Your task to perform on an android device: turn off location history Image 0: 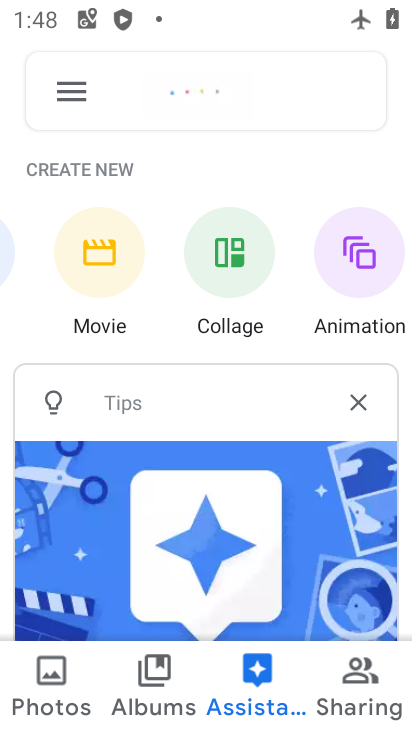
Step 0: press home button
Your task to perform on an android device: turn off location history Image 1: 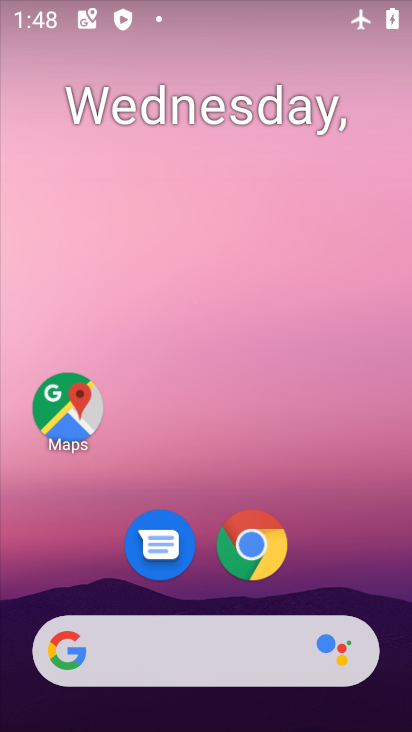
Step 1: drag from (333, 518) to (279, 49)
Your task to perform on an android device: turn off location history Image 2: 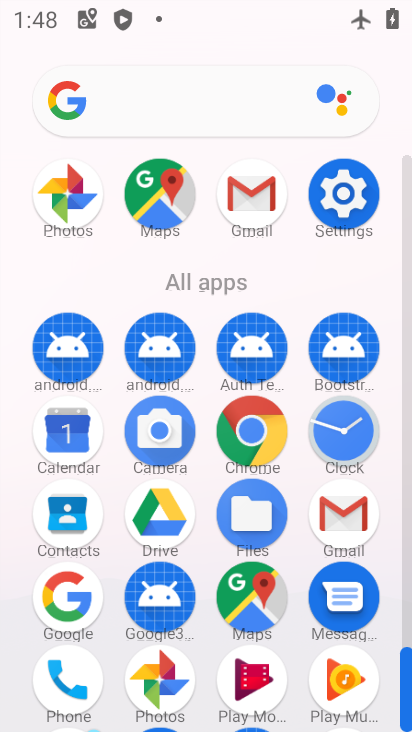
Step 2: click (356, 195)
Your task to perform on an android device: turn off location history Image 3: 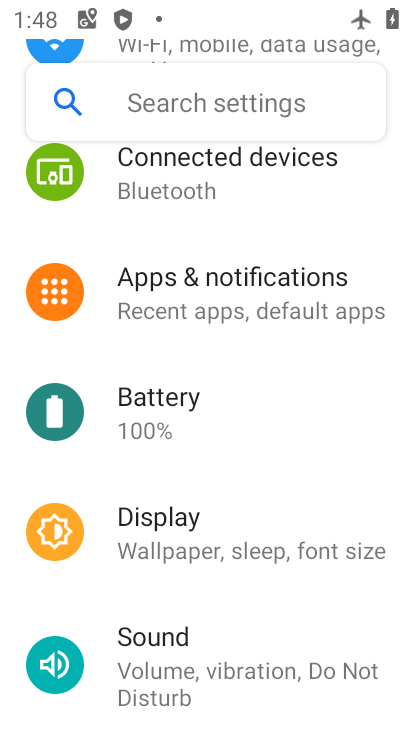
Step 3: drag from (235, 543) to (263, 145)
Your task to perform on an android device: turn off location history Image 4: 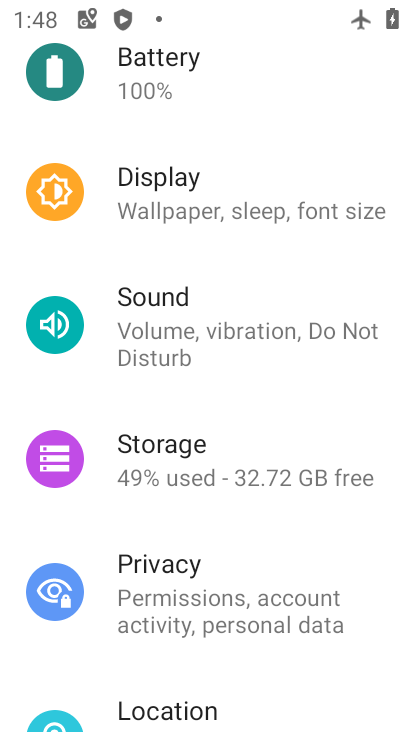
Step 4: drag from (203, 583) to (264, 264)
Your task to perform on an android device: turn off location history Image 5: 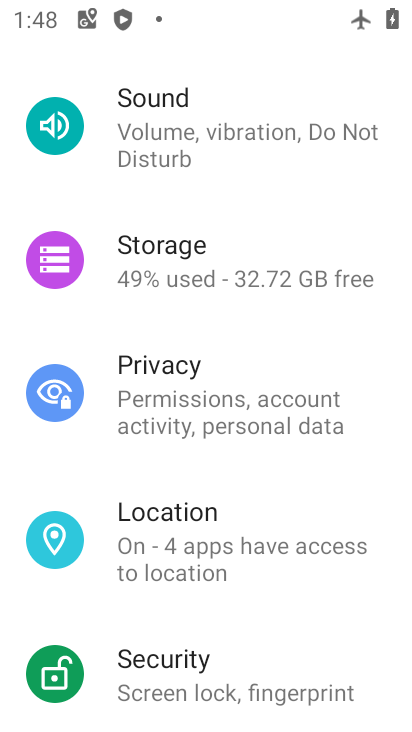
Step 5: click (170, 539)
Your task to perform on an android device: turn off location history Image 6: 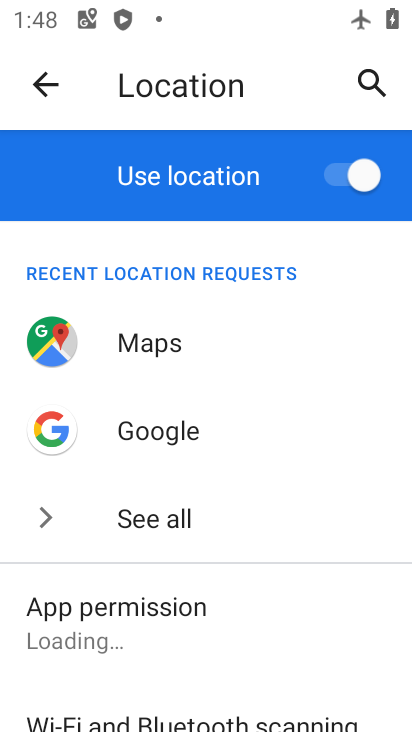
Step 6: drag from (245, 610) to (270, 155)
Your task to perform on an android device: turn off location history Image 7: 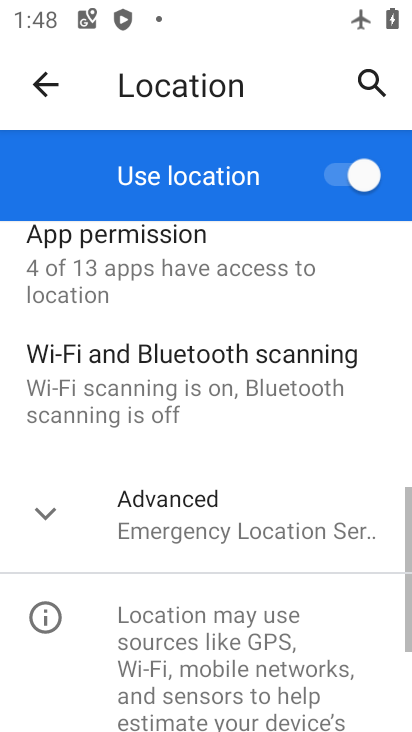
Step 7: click (210, 529)
Your task to perform on an android device: turn off location history Image 8: 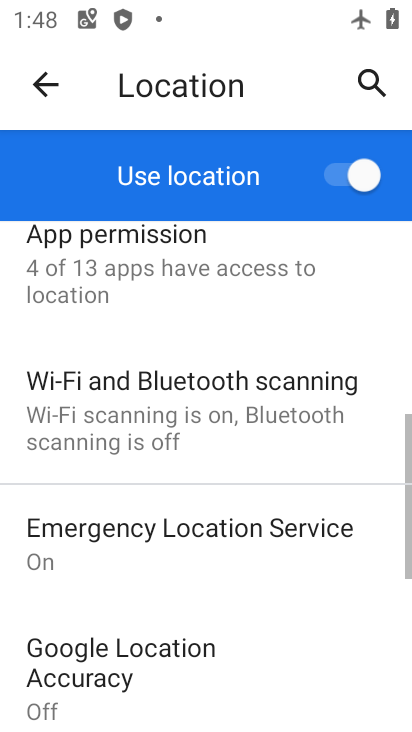
Step 8: drag from (349, 697) to (342, 270)
Your task to perform on an android device: turn off location history Image 9: 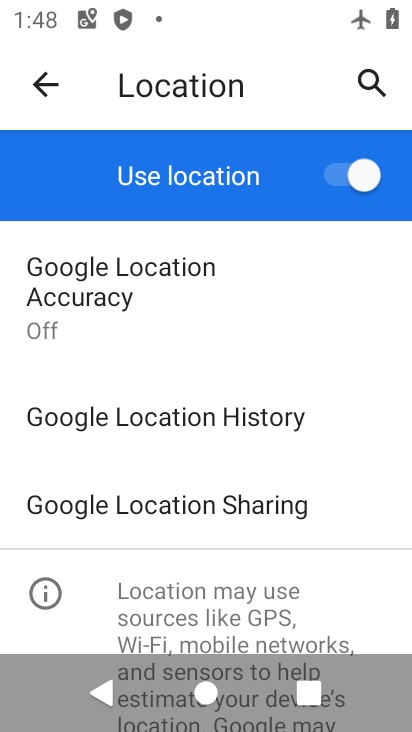
Step 9: click (260, 418)
Your task to perform on an android device: turn off location history Image 10: 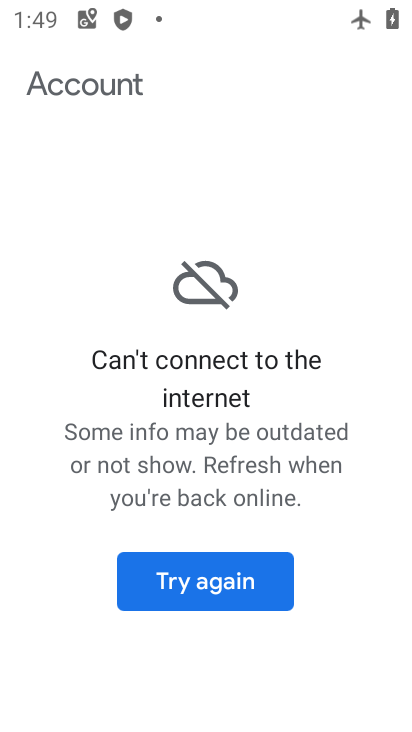
Step 10: task complete